Your task to perform on an android device: change your default location settings in chrome Image 0: 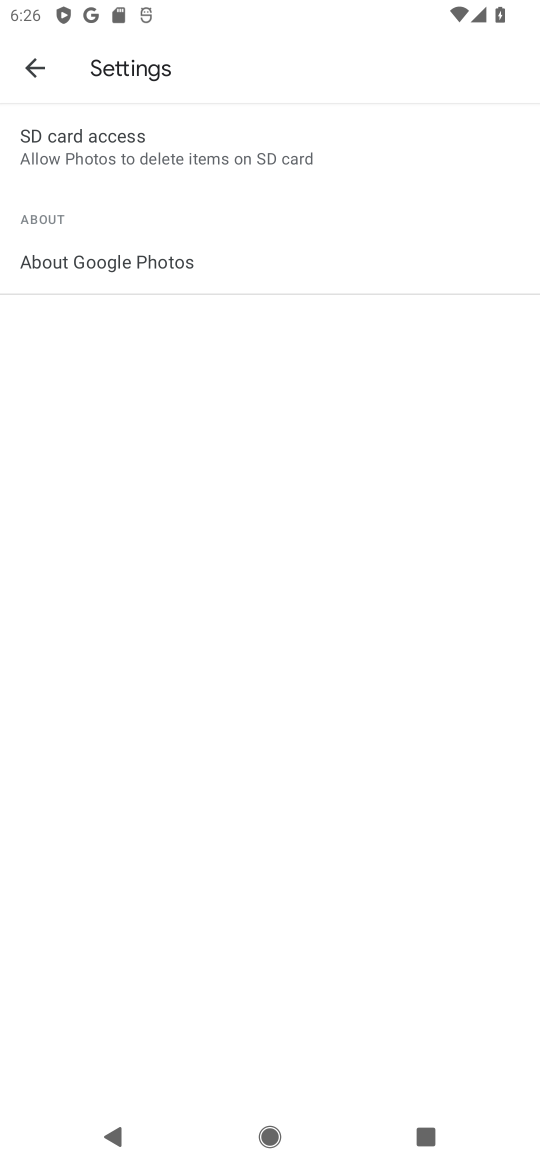
Step 0: press home button
Your task to perform on an android device: change your default location settings in chrome Image 1: 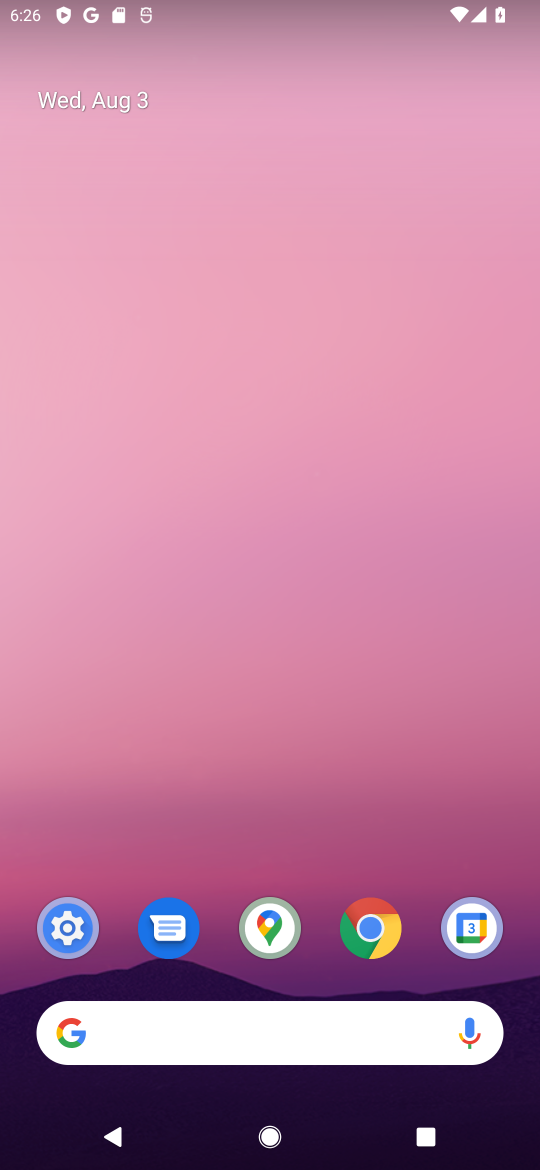
Step 1: drag from (320, 814) to (314, 145)
Your task to perform on an android device: change your default location settings in chrome Image 2: 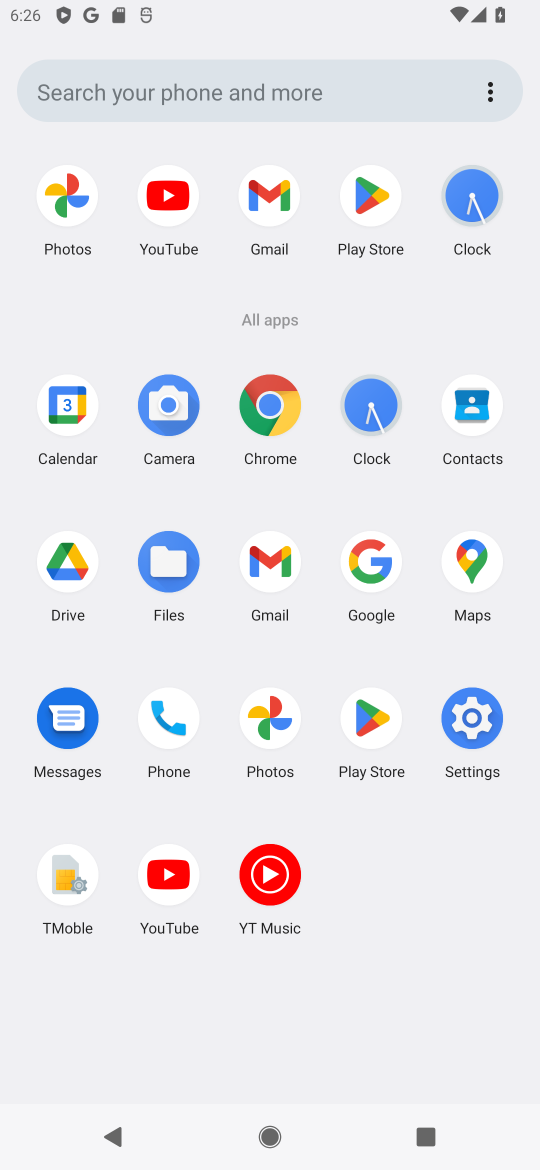
Step 2: click (281, 407)
Your task to perform on an android device: change your default location settings in chrome Image 3: 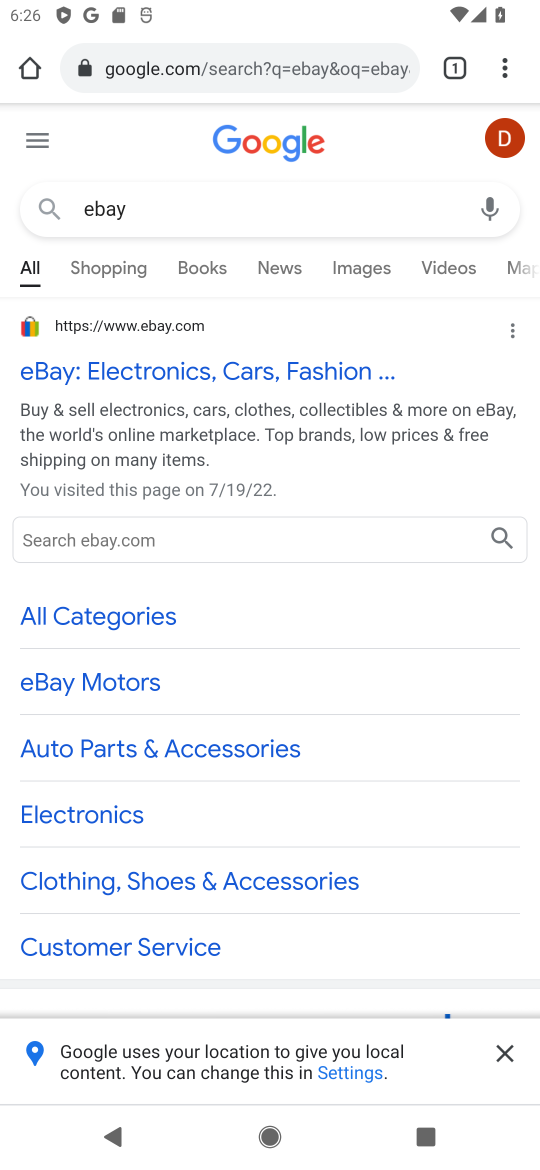
Step 3: click (504, 73)
Your task to perform on an android device: change your default location settings in chrome Image 4: 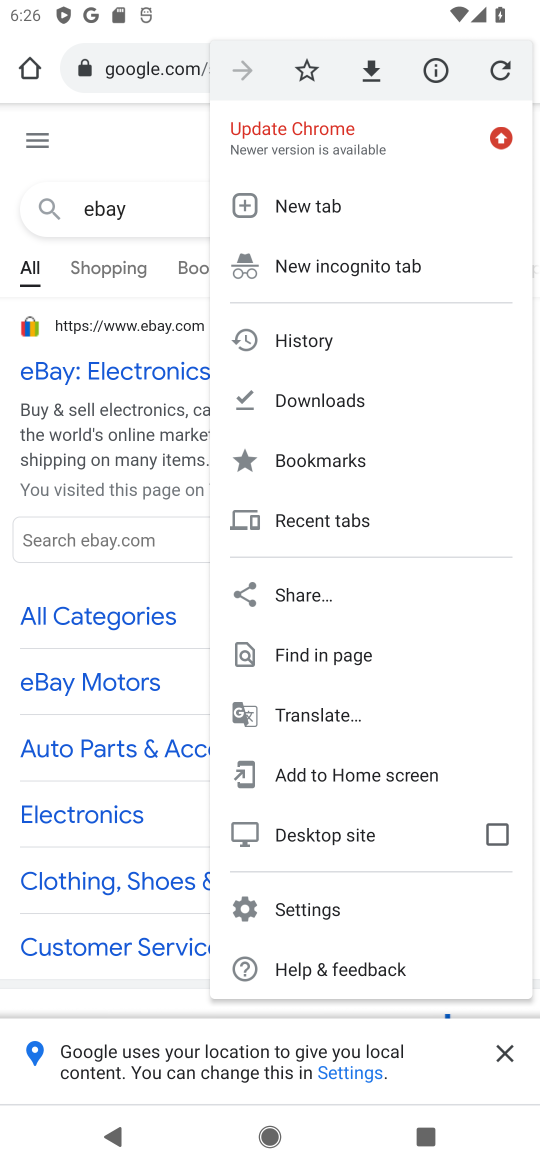
Step 4: click (338, 907)
Your task to perform on an android device: change your default location settings in chrome Image 5: 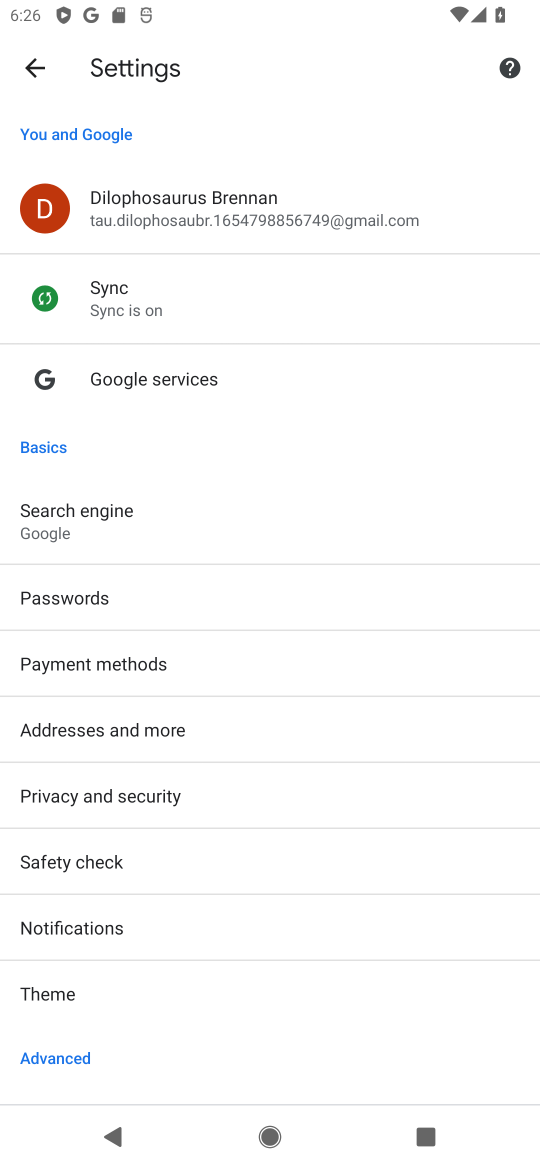
Step 5: drag from (295, 882) to (318, 727)
Your task to perform on an android device: change your default location settings in chrome Image 6: 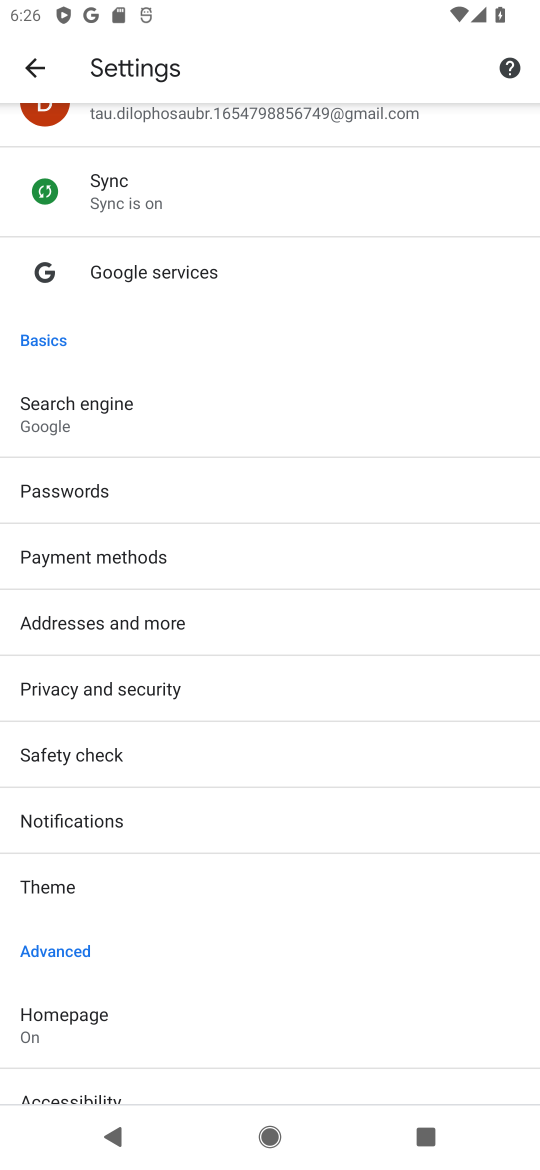
Step 6: drag from (329, 895) to (325, 725)
Your task to perform on an android device: change your default location settings in chrome Image 7: 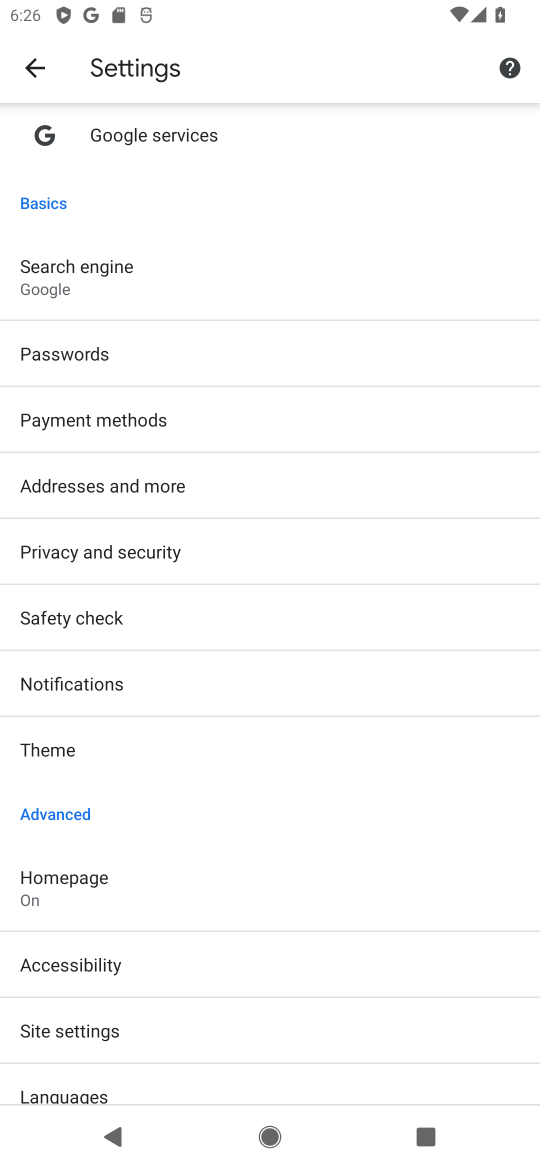
Step 7: drag from (315, 937) to (301, 683)
Your task to perform on an android device: change your default location settings in chrome Image 8: 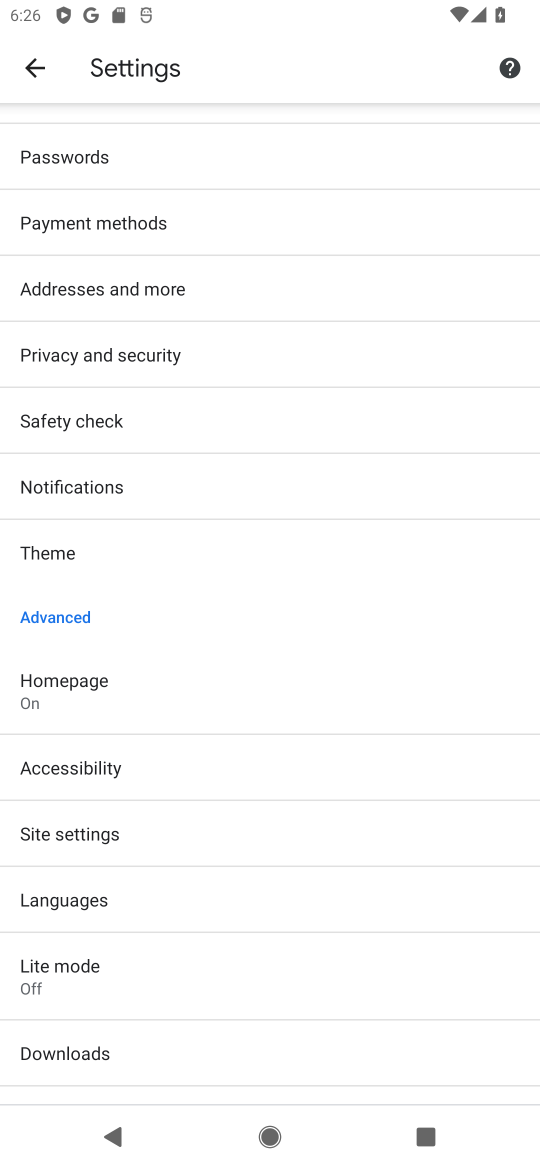
Step 8: click (306, 840)
Your task to perform on an android device: change your default location settings in chrome Image 9: 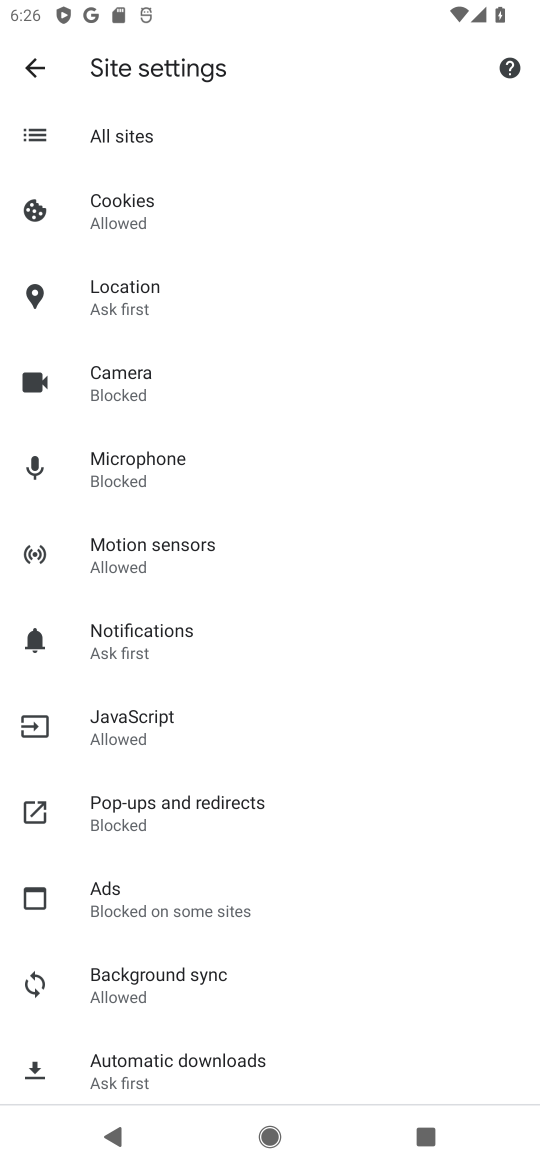
Step 9: drag from (391, 802) to (414, 619)
Your task to perform on an android device: change your default location settings in chrome Image 10: 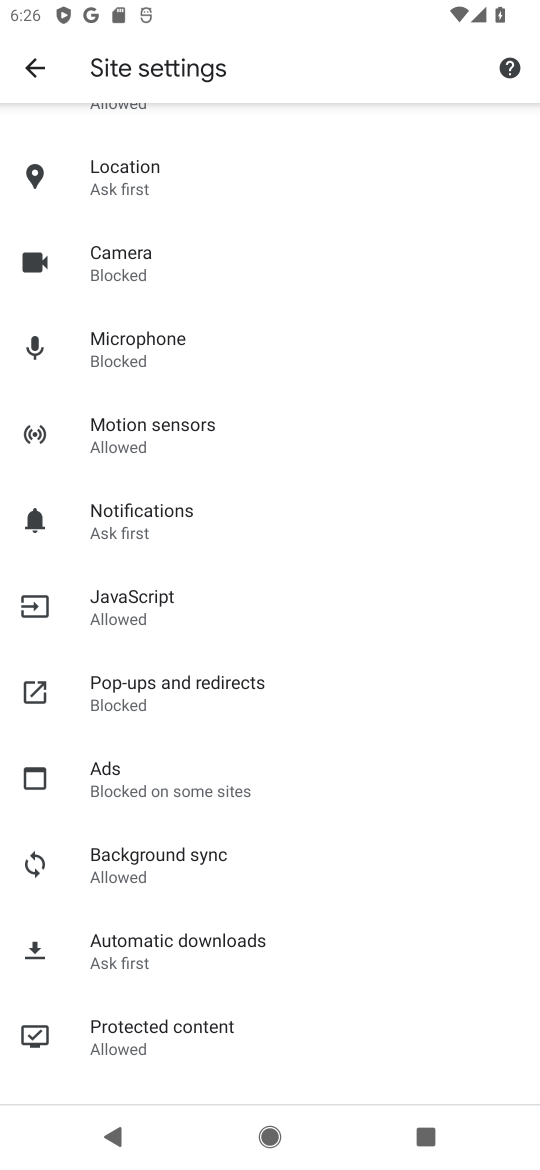
Step 10: drag from (401, 892) to (414, 629)
Your task to perform on an android device: change your default location settings in chrome Image 11: 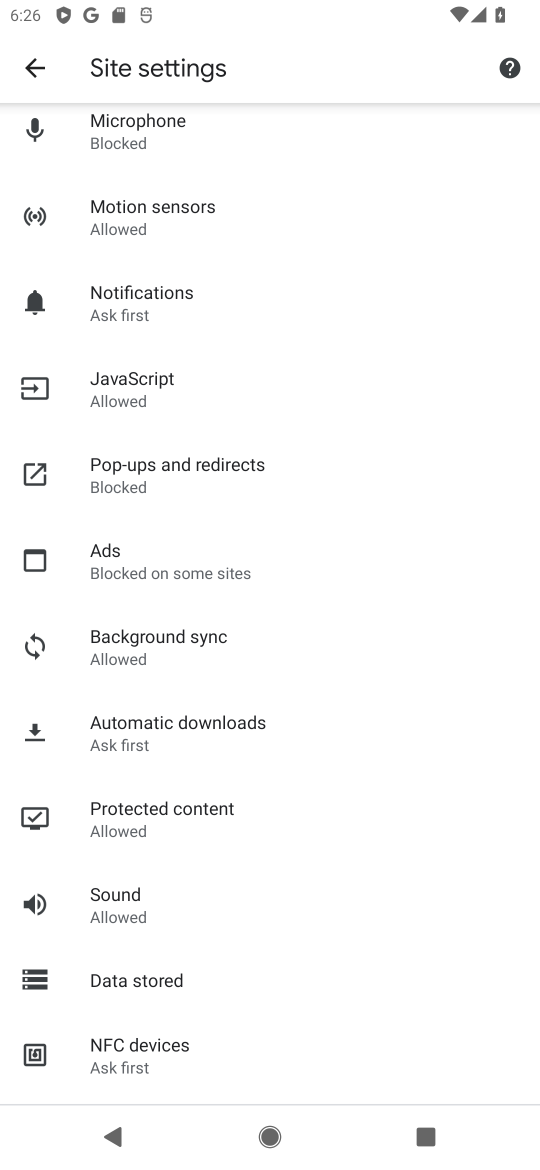
Step 11: drag from (410, 701) to (410, 636)
Your task to perform on an android device: change your default location settings in chrome Image 12: 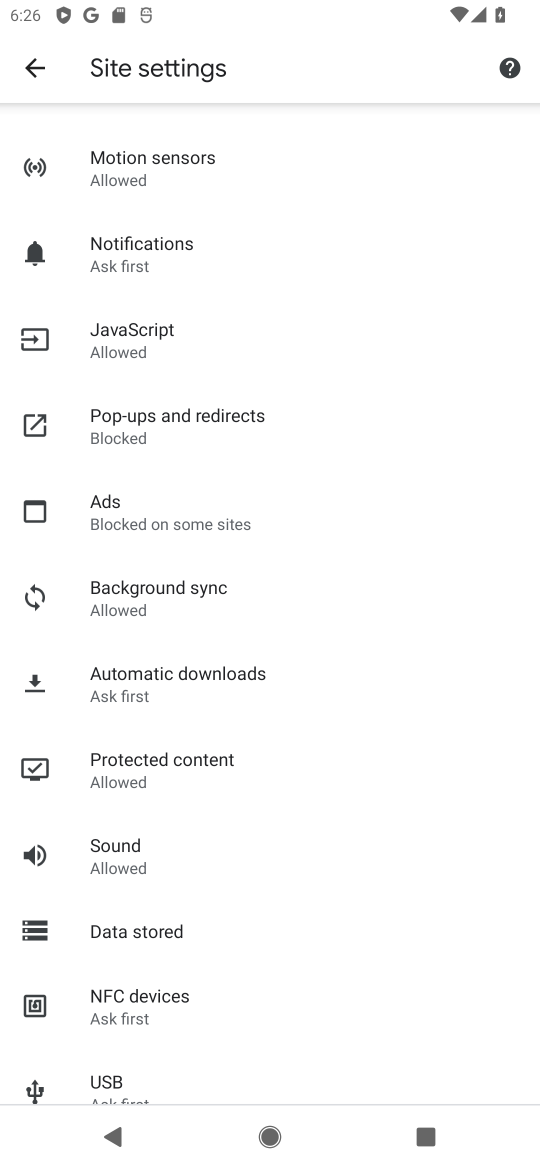
Step 12: drag from (361, 907) to (378, 620)
Your task to perform on an android device: change your default location settings in chrome Image 13: 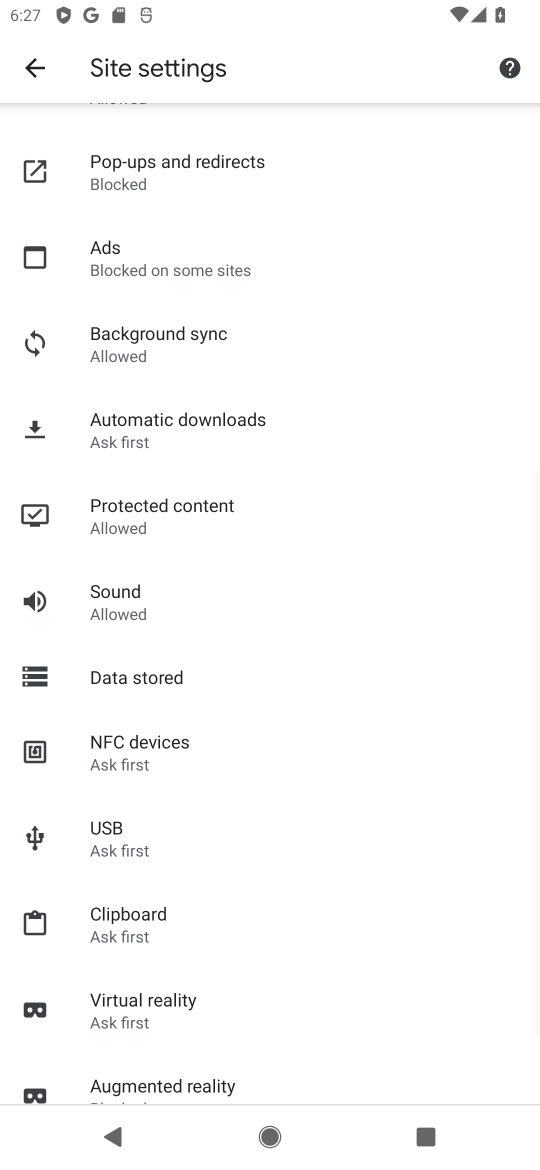
Step 13: drag from (393, 475) to (397, 748)
Your task to perform on an android device: change your default location settings in chrome Image 14: 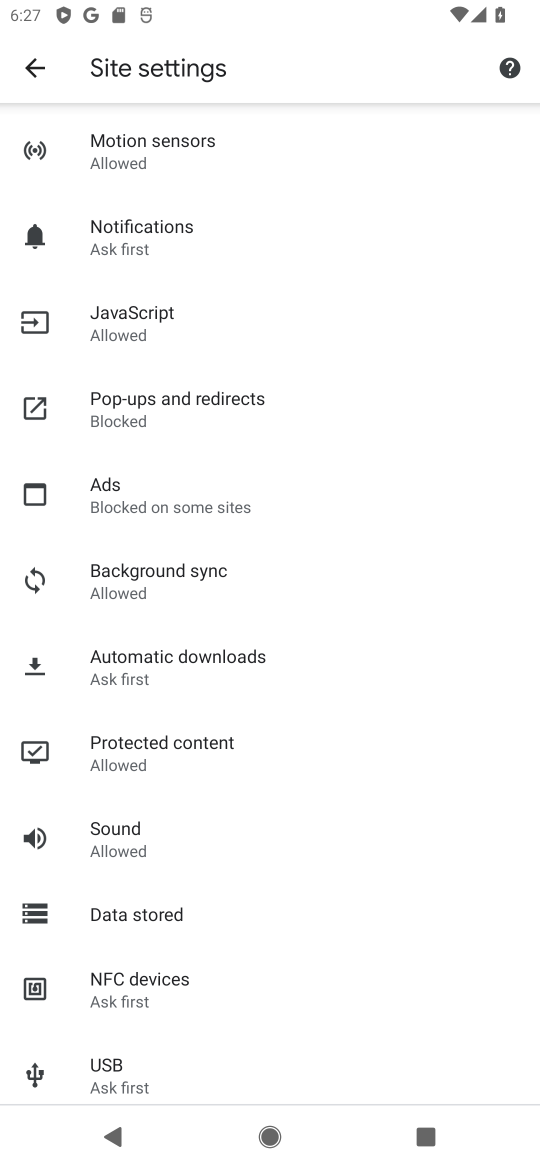
Step 14: drag from (379, 388) to (374, 621)
Your task to perform on an android device: change your default location settings in chrome Image 15: 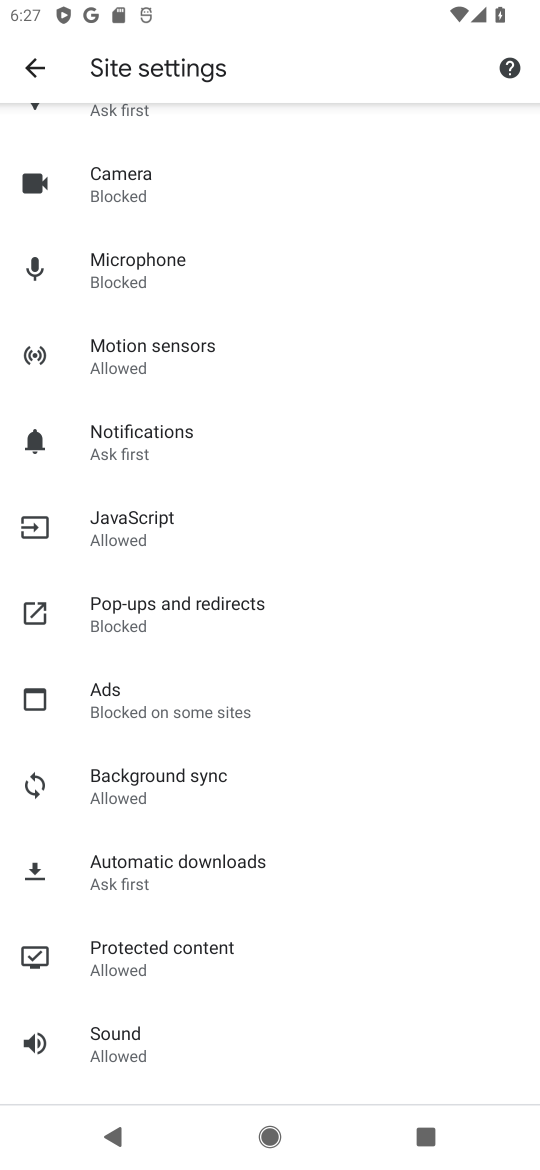
Step 15: drag from (351, 372) to (334, 741)
Your task to perform on an android device: change your default location settings in chrome Image 16: 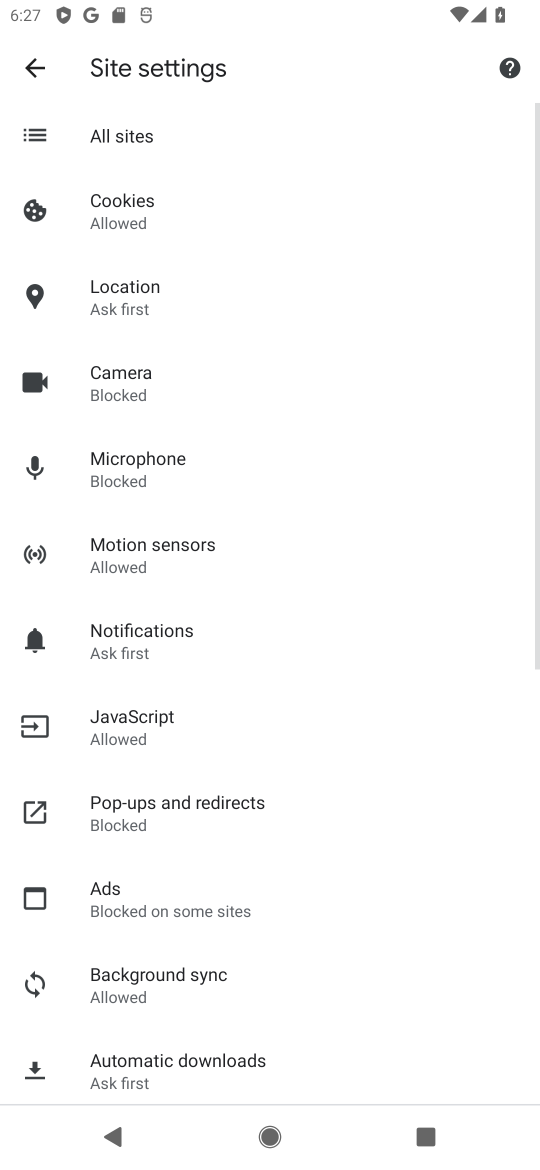
Step 16: click (174, 301)
Your task to perform on an android device: change your default location settings in chrome Image 17: 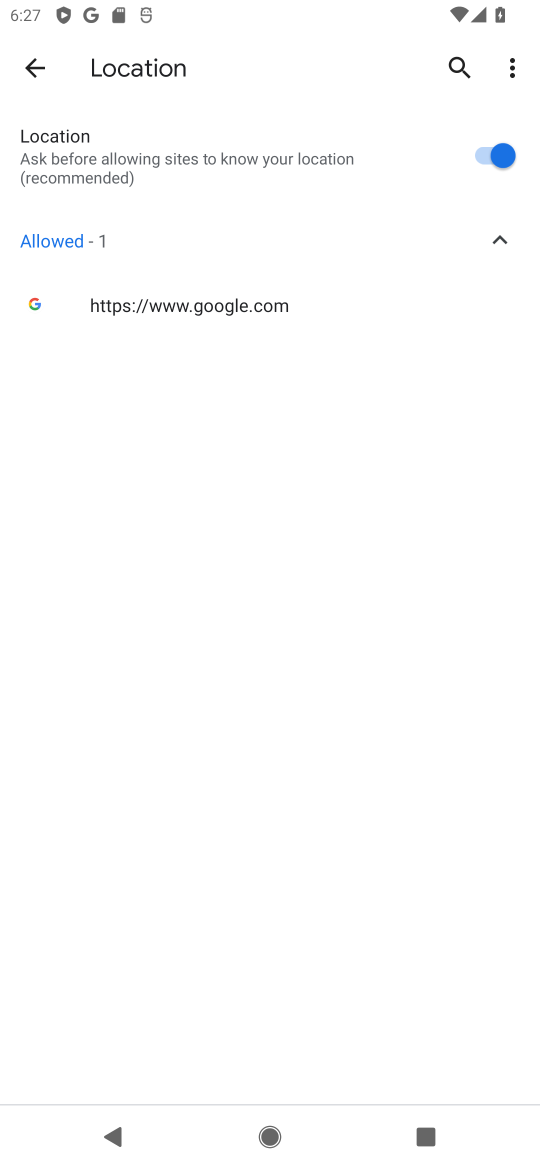
Step 17: click (488, 160)
Your task to perform on an android device: change your default location settings in chrome Image 18: 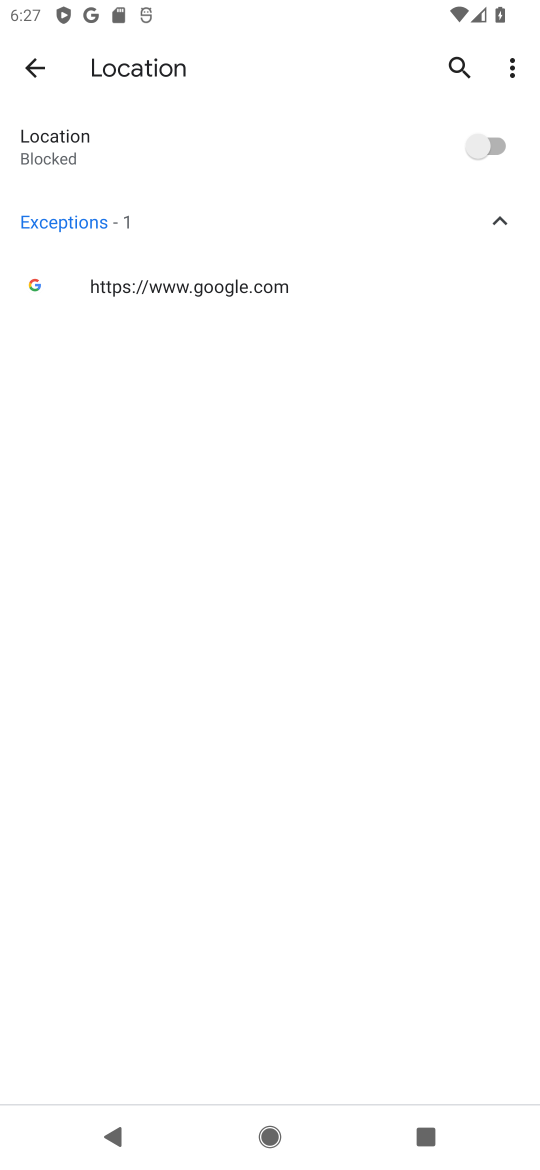
Step 18: task complete